Your task to perform on an android device: turn off picture-in-picture Image 0: 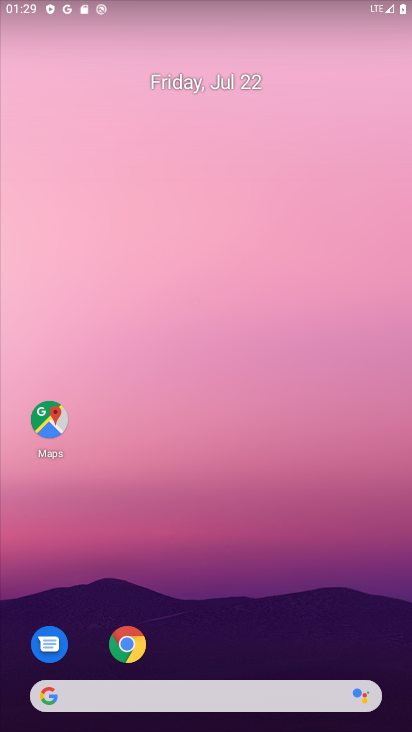
Step 0: click (132, 642)
Your task to perform on an android device: turn off picture-in-picture Image 1: 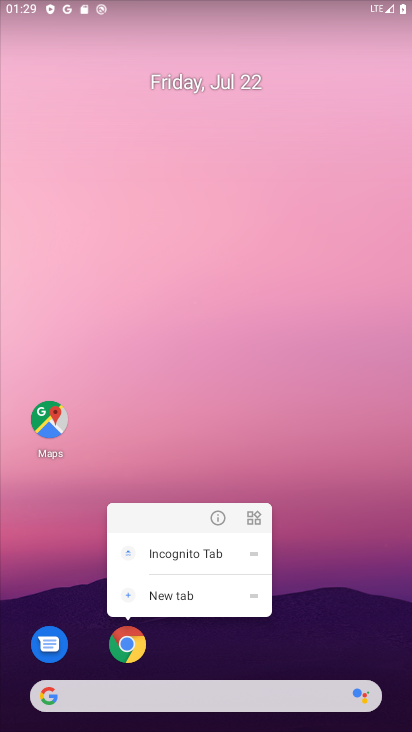
Step 1: click (217, 514)
Your task to perform on an android device: turn off picture-in-picture Image 2: 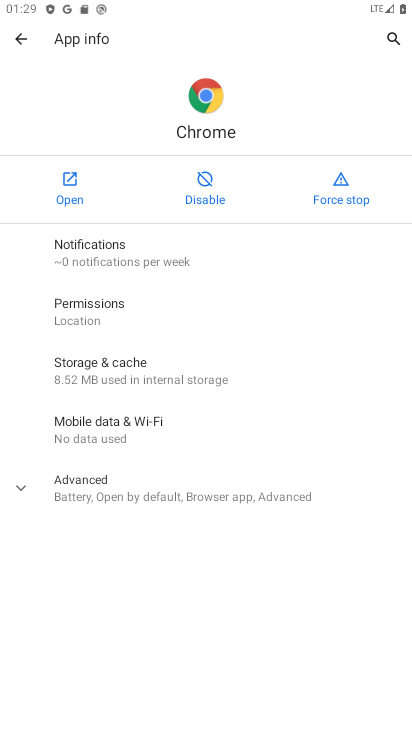
Step 2: click (235, 479)
Your task to perform on an android device: turn off picture-in-picture Image 3: 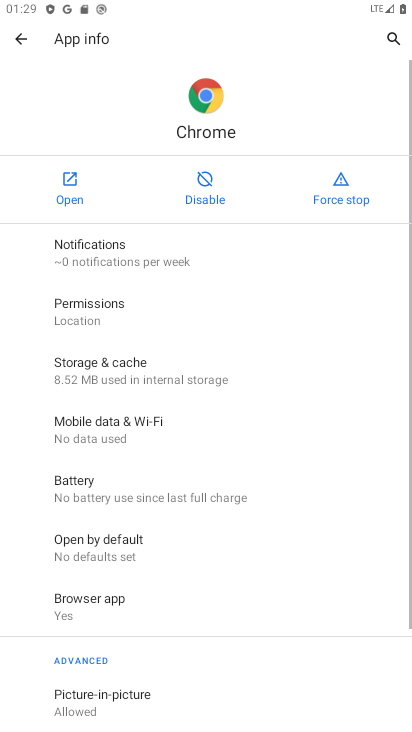
Step 3: drag from (262, 667) to (215, 65)
Your task to perform on an android device: turn off picture-in-picture Image 4: 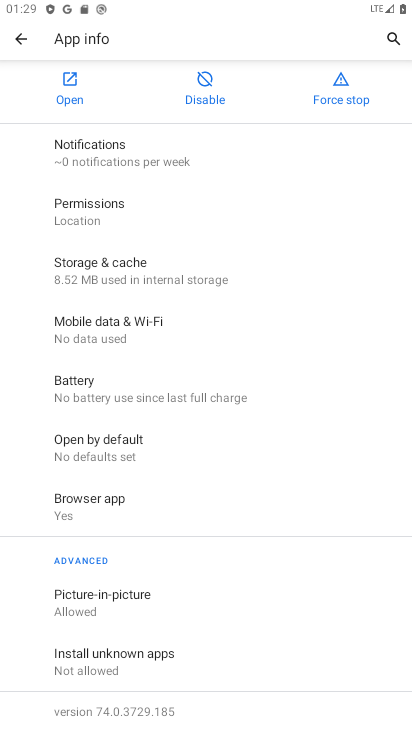
Step 4: click (175, 599)
Your task to perform on an android device: turn off picture-in-picture Image 5: 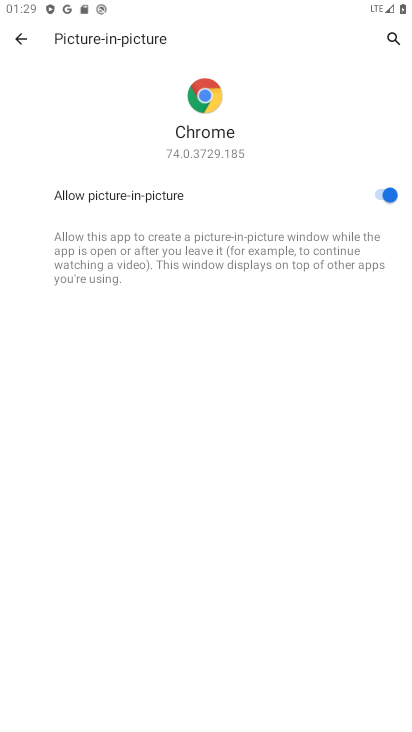
Step 5: click (389, 194)
Your task to perform on an android device: turn off picture-in-picture Image 6: 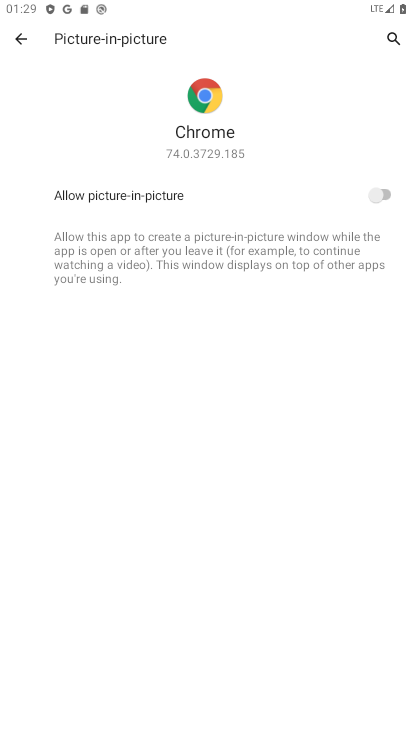
Step 6: task complete